Your task to perform on an android device: turn on wifi Image 0: 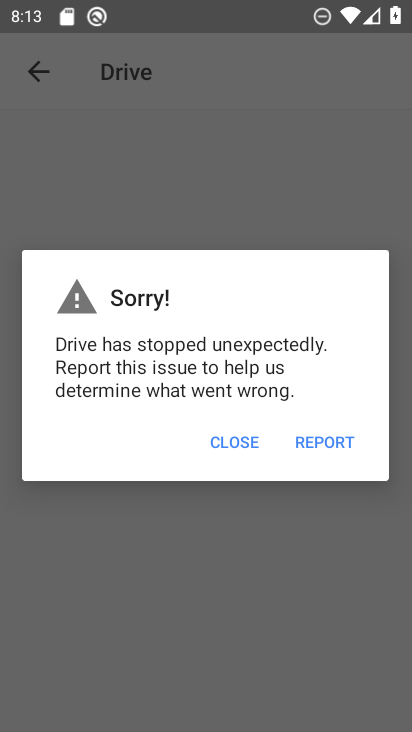
Step 0: drag from (269, 17) to (154, 721)
Your task to perform on an android device: turn on wifi Image 1: 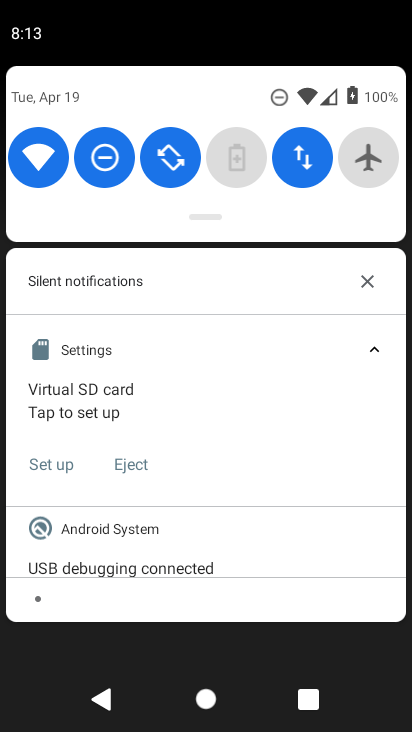
Step 1: task complete